Your task to perform on an android device: set default search engine in the chrome app Image 0: 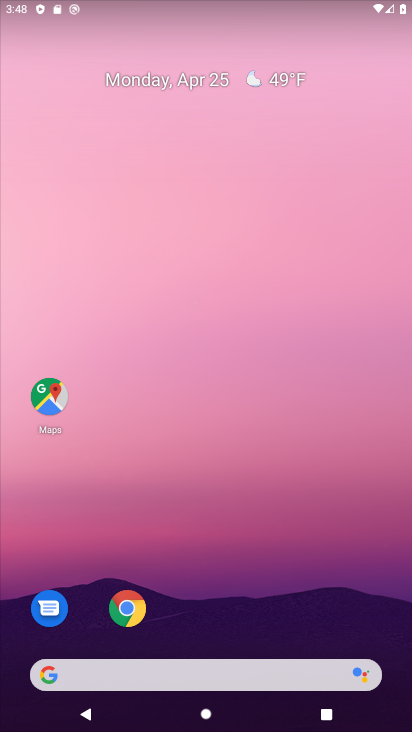
Step 0: drag from (225, 583) to (225, 112)
Your task to perform on an android device: set default search engine in the chrome app Image 1: 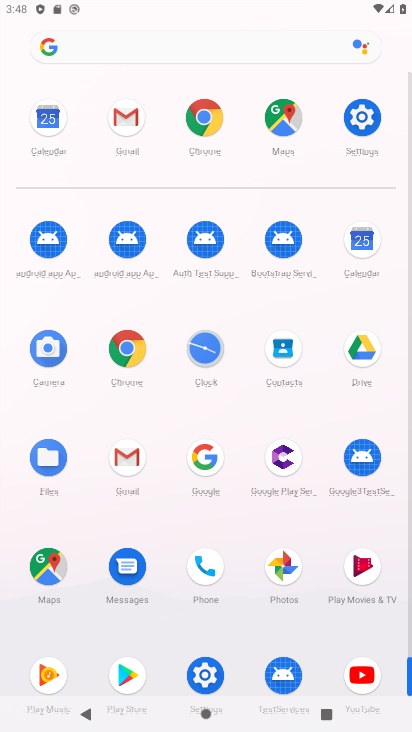
Step 1: click (134, 365)
Your task to perform on an android device: set default search engine in the chrome app Image 2: 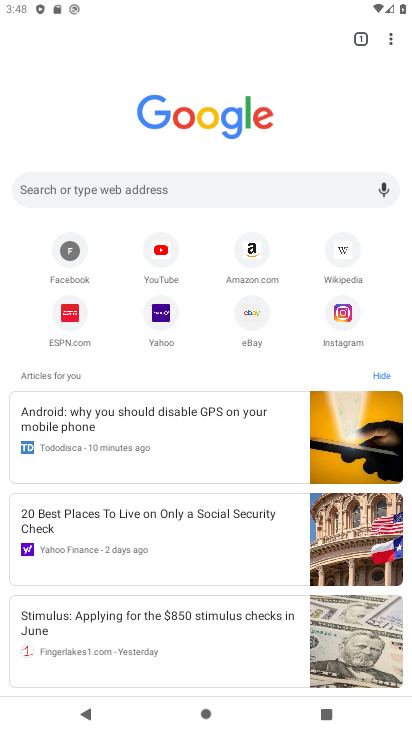
Step 2: click (387, 45)
Your task to perform on an android device: set default search engine in the chrome app Image 3: 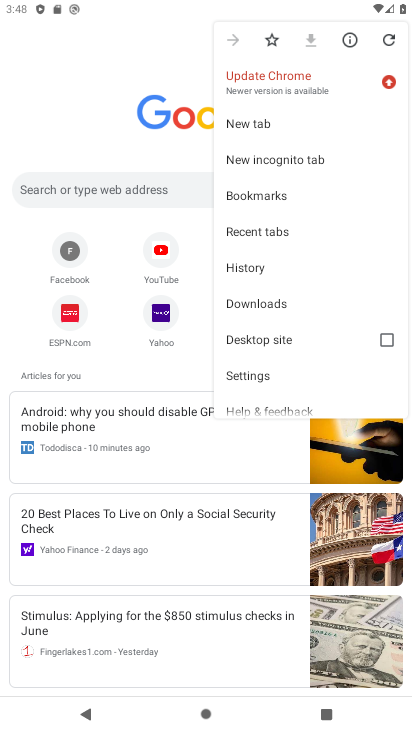
Step 3: click (273, 376)
Your task to perform on an android device: set default search engine in the chrome app Image 4: 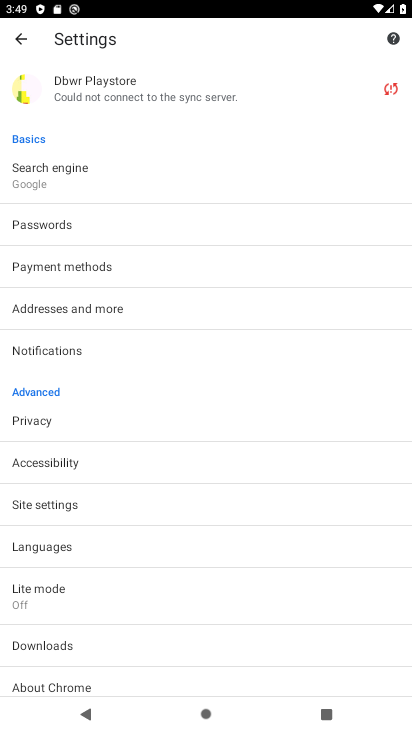
Step 4: click (81, 176)
Your task to perform on an android device: set default search engine in the chrome app Image 5: 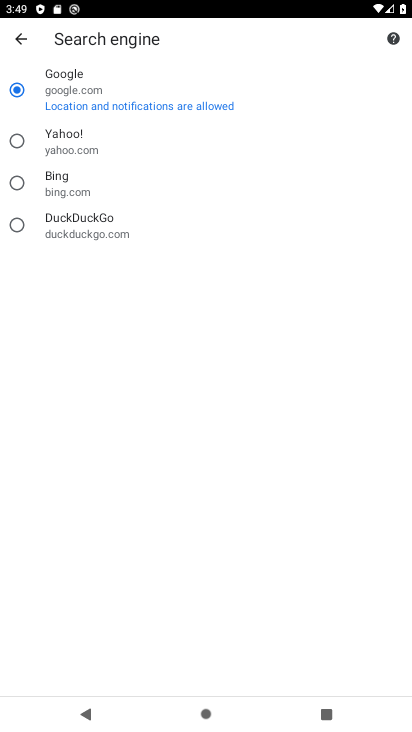
Step 5: task complete